Your task to perform on an android device: all mails in gmail Image 0: 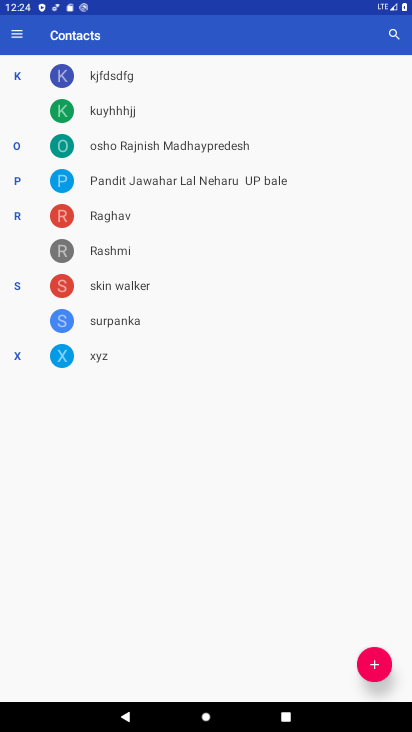
Step 0: press home button
Your task to perform on an android device: all mails in gmail Image 1: 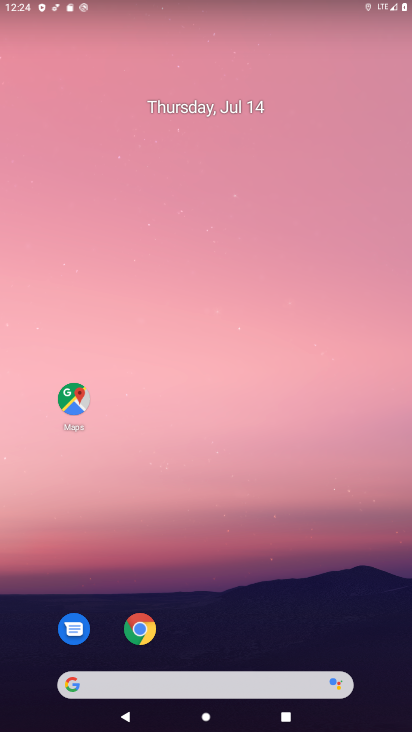
Step 1: drag from (281, 556) to (202, 3)
Your task to perform on an android device: all mails in gmail Image 2: 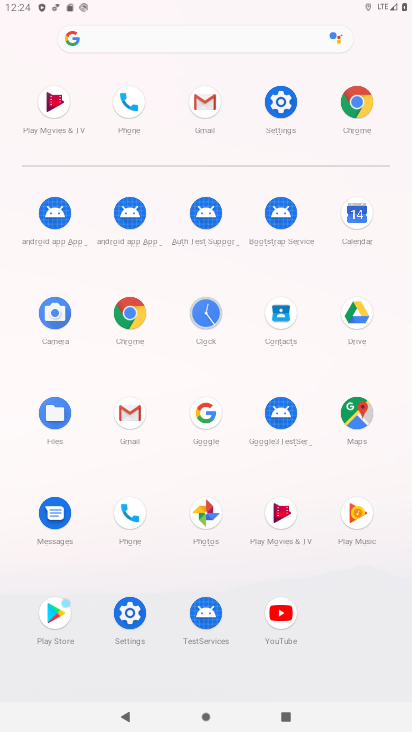
Step 2: click (197, 110)
Your task to perform on an android device: all mails in gmail Image 3: 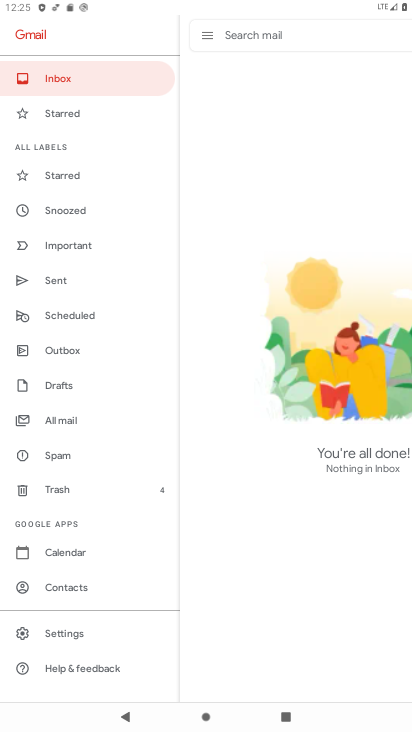
Step 3: click (29, 415)
Your task to perform on an android device: all mails in gmail Image 4: 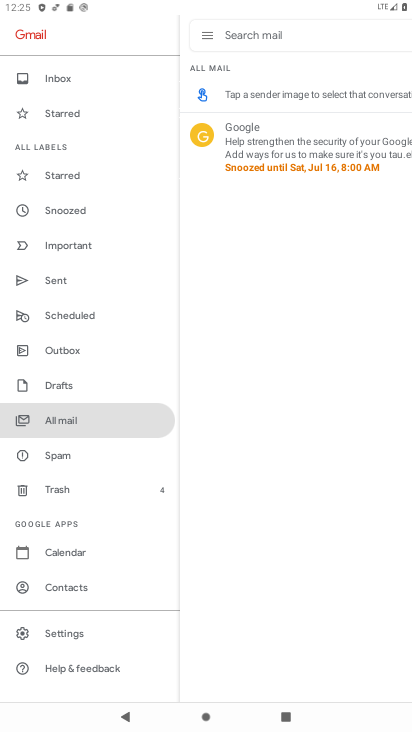
Step 4: task complete